Your task to perform on an android device: Open the Play Movies app and select the watchlist tab. Image 0: 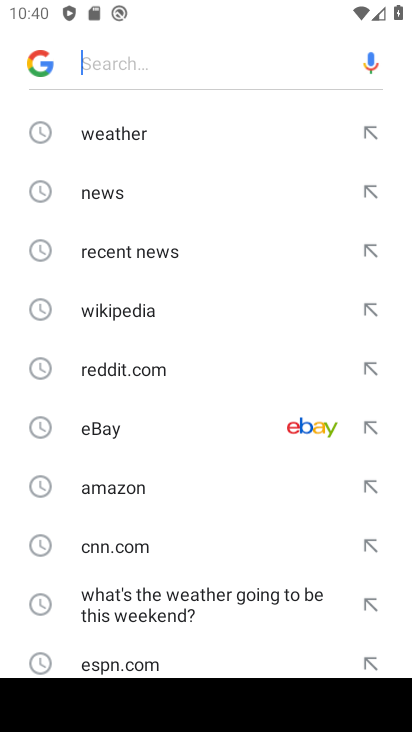
Step 0: press home button
Your task to perform on an android device: Open the Play Movies app and select the watchlist tab. Image 1: 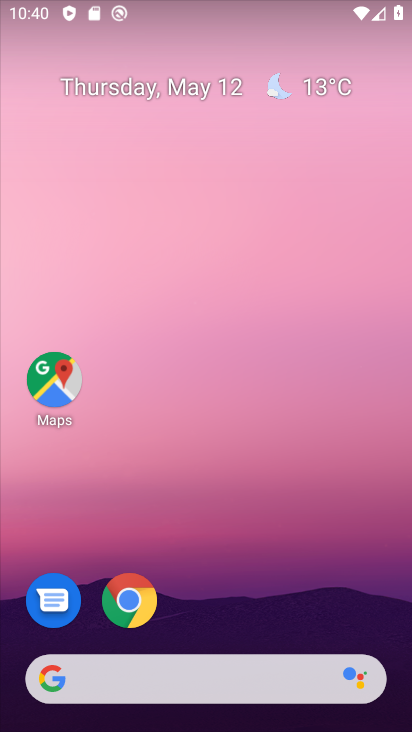
Step 1: drag from (399, 651) to (325, 147)
Your task to perform on an android device: Open the Play Movies app and select the watchlist tab. Image 2: 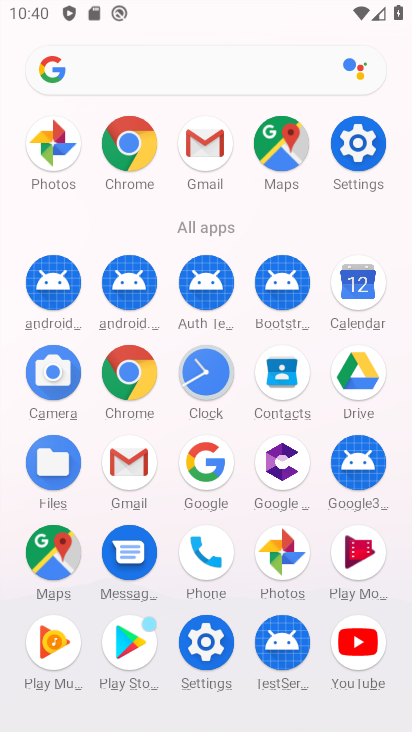
Step 2: click (352, 552)
Your task to perform on an android device: Open the Play Movies app and select the watchlist tab. Image 3: 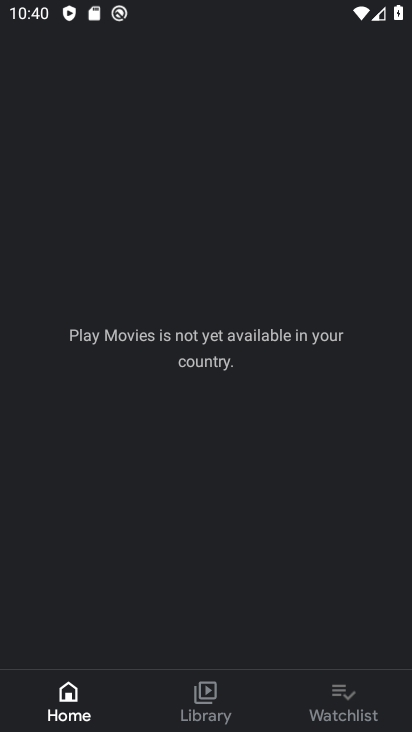
Step 3: click (339, 695)
Your task to perform on an android device: Open the Play Movies app and select the watchlist tab. Image 4: 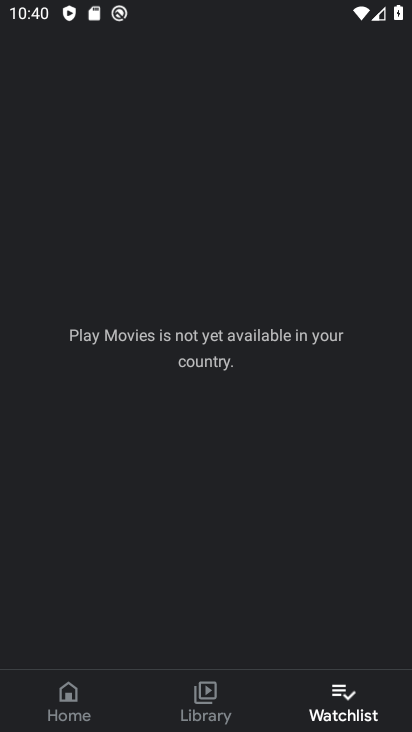
Step 4: task complete